Your task to perform on an android device: Open Youtube and go to the subscriptions tab Image 0: 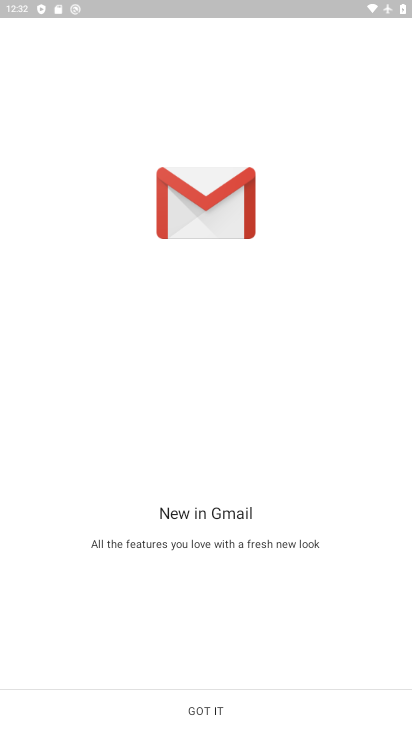
Step 0: click (201, 701)
Your task to perform on an android device: Open Youtube and go to the subscriptions tab Image 1: 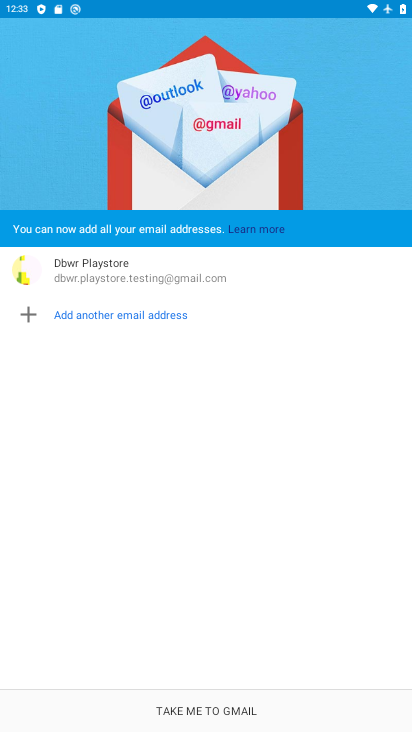
Step 1: click (232, 703)
Your task to perform on an android device: Open Youtube and go to the subscriptions tab Image 2: 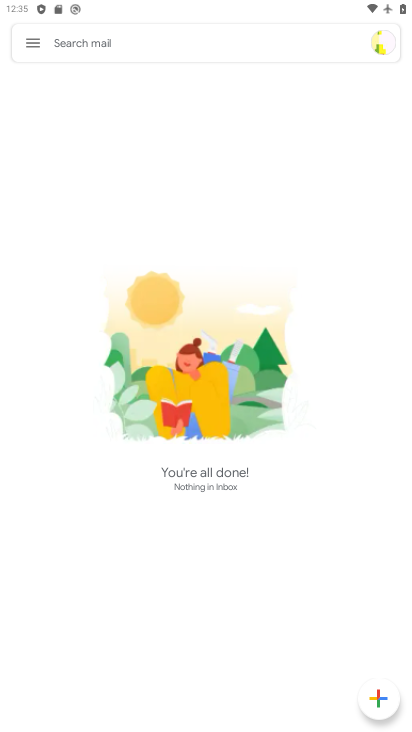
Step 2: task complete